Your task to perform on an android device: turn off translation in the chrome app Image 0: 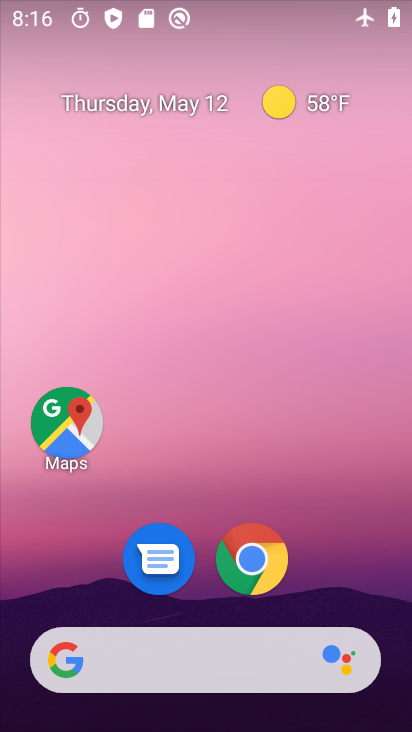
Step 0: click (249, 557)
Your task to perform on an android device: turn off translation in the chrome app Image 1: 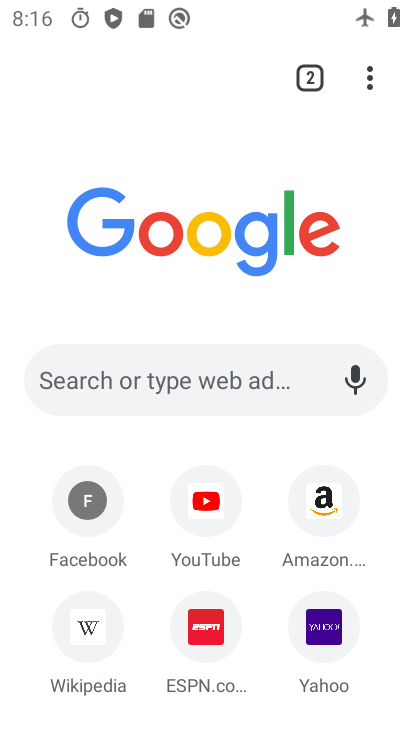
Step 1: click (370, 80)
Your task to perform on an android device: turn off translation in the chrome app Image 2: 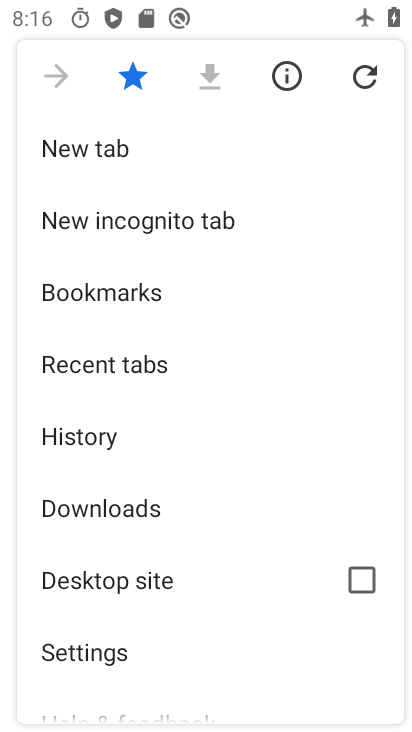
Step 2: click (89, 649)
Your task to perform on an android device: turn off translation in the chrome app Image 3: 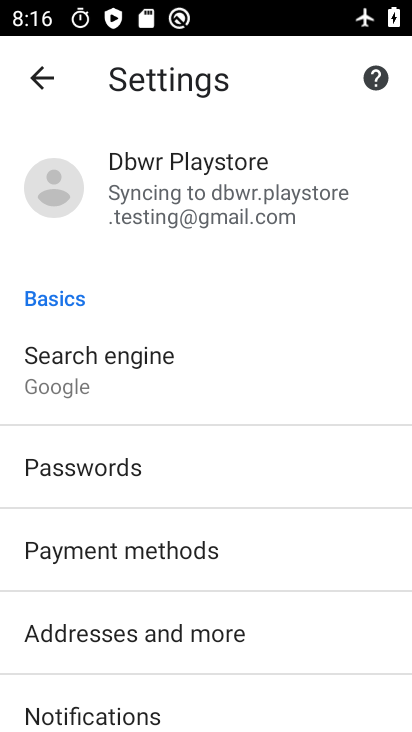
Step 3: drag from (110, 675) to (229, 515)
Your task to perform on an android device: turn off translation in the chrome app Image 4: 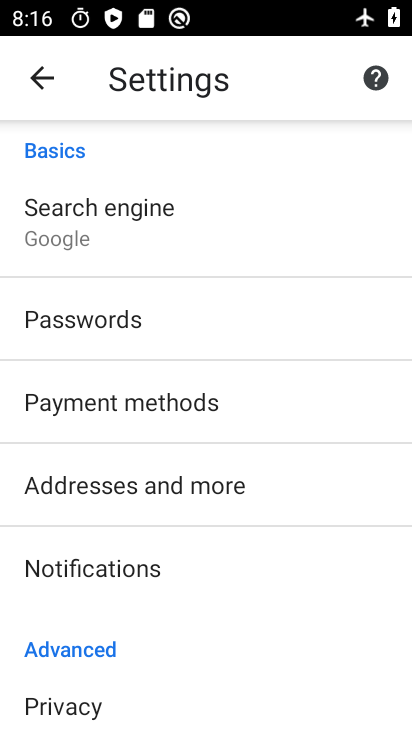
Step 4: drag from (190, 678) to (286, 541)
Your task to perform on an android device: turn off translation in the chrome app Image 5: 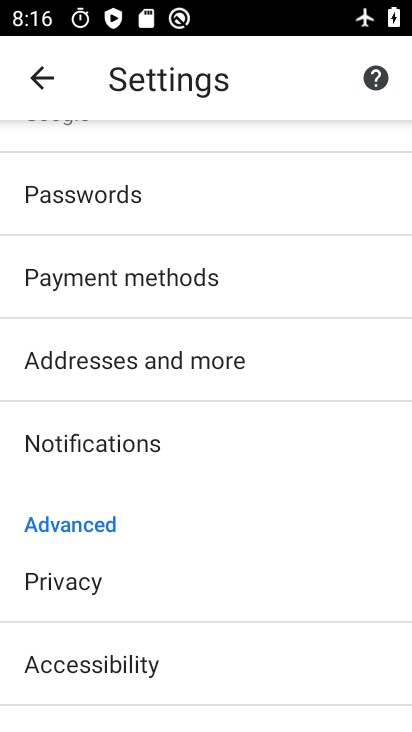
Step 5: drag from (224, 655) to (287, 543)
Your task to perform on an android device: turn off translation in the chrome app Image 6: 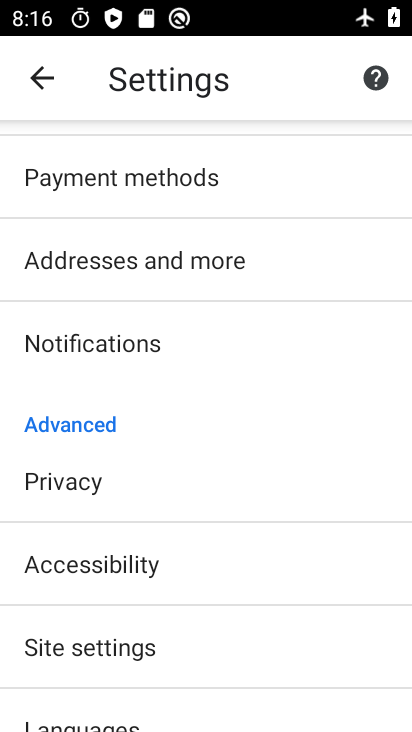
Step 6: drag from (209, 637) to (280, 522)
Your task to perform on an android device: turn off translation in the chrome app Image 7: 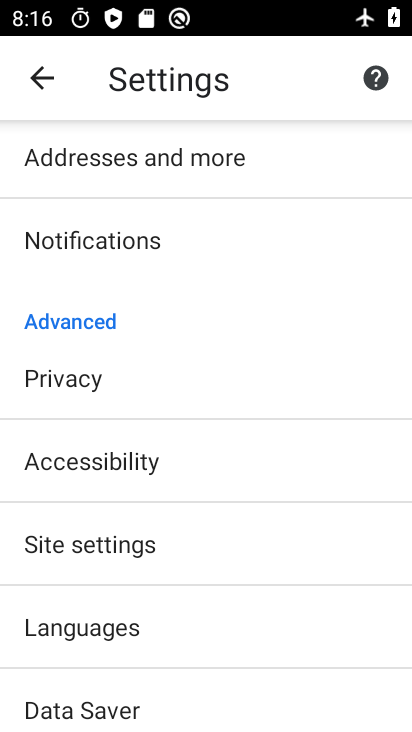
Step 7: click (109, 639)
Your task to perform on an android device: turn off translation in the chrome app Image 8: 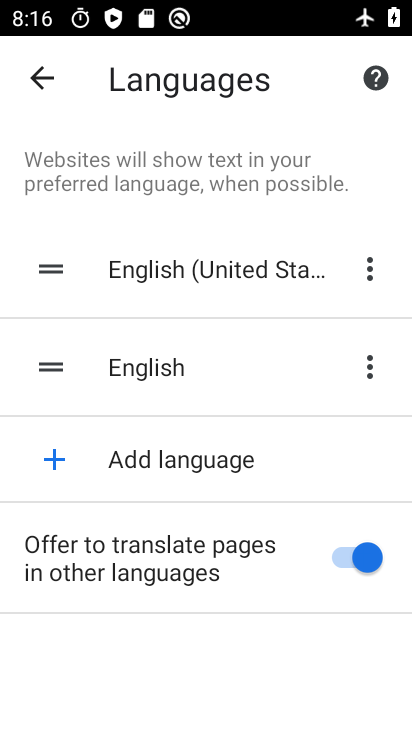
Step 8: click (364, 553)
Your task to perform on an android device: turn off translation in the chrome app Image 9: 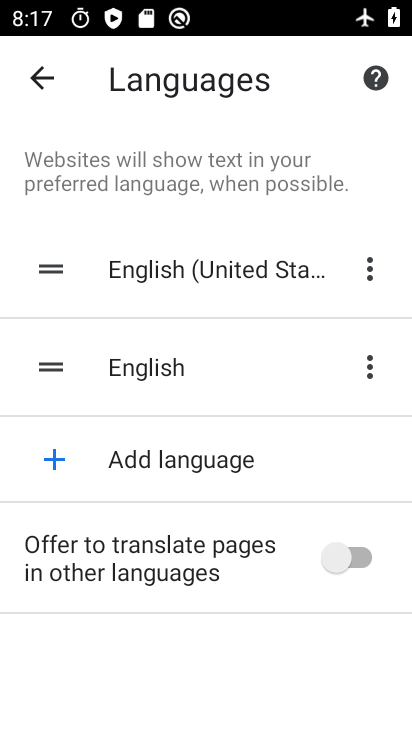
Step 9: task complete